Your task to perform on an android device: change the clock display to digital Image 0: 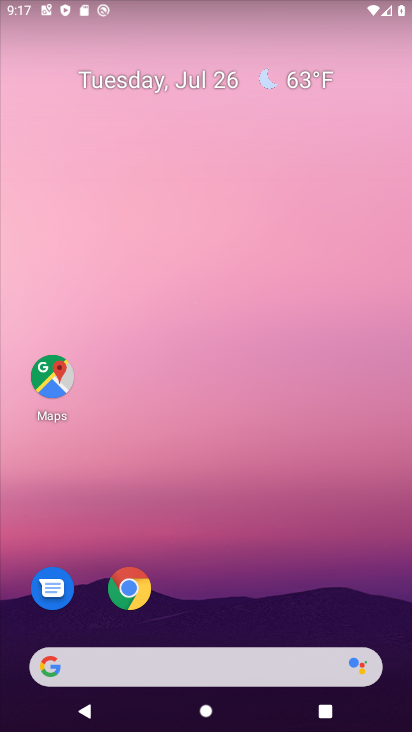
Step 0: drag from (214, 618) to (152, 3)
Your task to perform on an android device: change the clock display to digital Image 1: 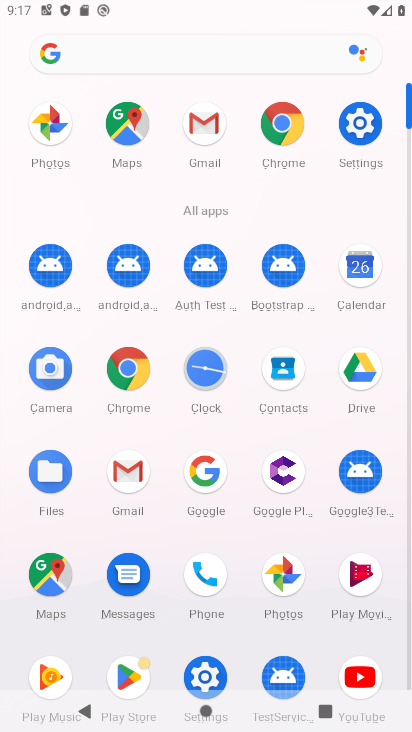
Step 1: click (200, 408)
Your task to perform on an android device: change the clock display to digital Image 2: 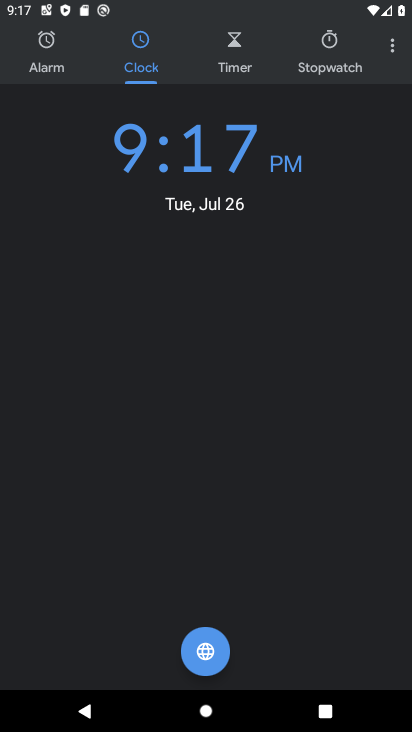
Step 2: click (399, 48)
Your task to perform on an android device: change the clock display to digital Image 3: 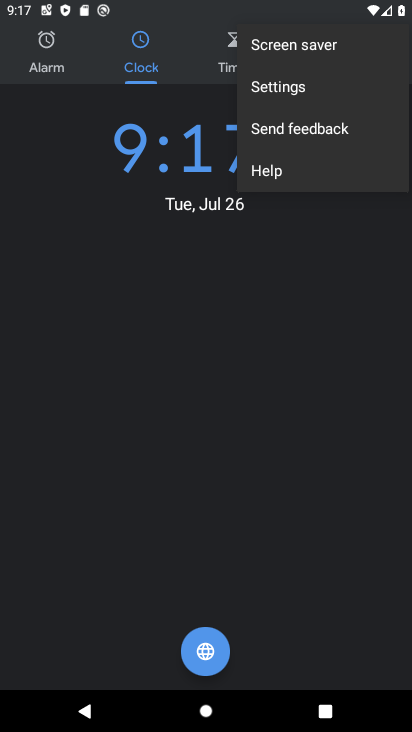
Step 3: click (322, 85)
Your task to perform on an android device: change the clock display to digital Image 4: 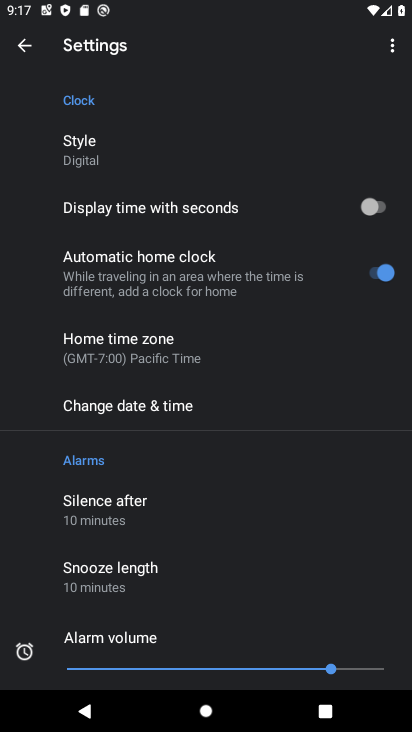
Step 4: click (94, 148)
Your task to perform on an android device: change the clock display to digital Image 5: 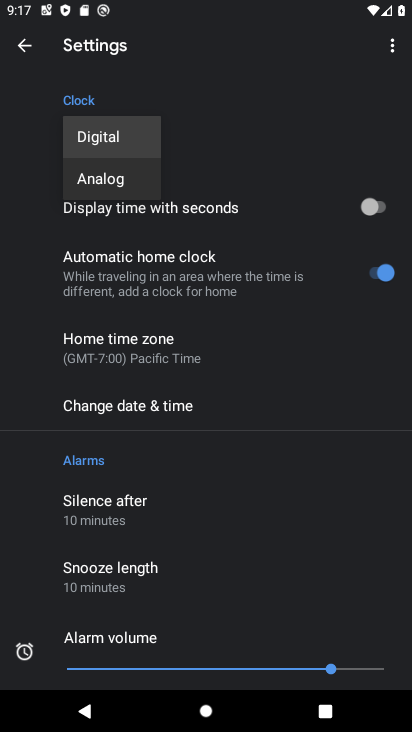
Step 5: task complete